Your task to perform on an android device: Show me productivity apps on the Play Store Image 0: 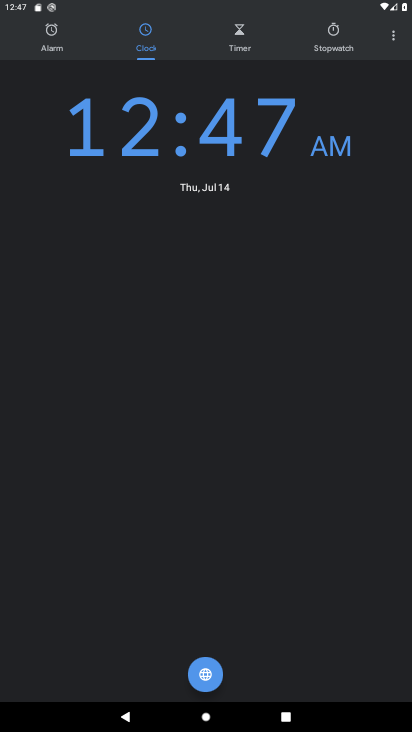
Step 0: press home button
Your task to perform on an android device: Show me productivity apps on the Play Store Image 1: 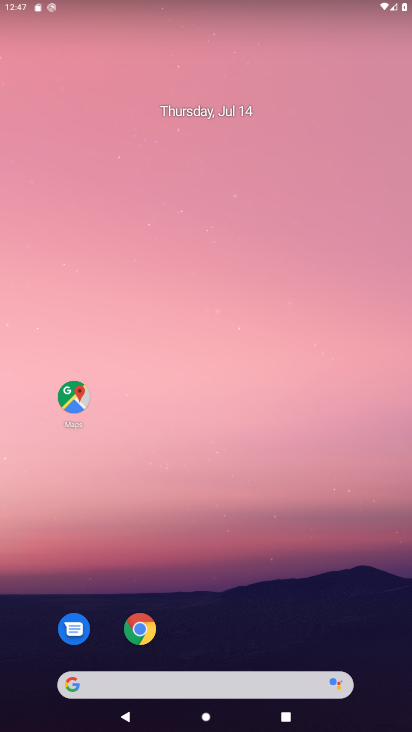
Step 1: drag from (295, 464) to (303, 0)
Your task to perform on an android device: Show me productivity apps on the Play Store Image 2: 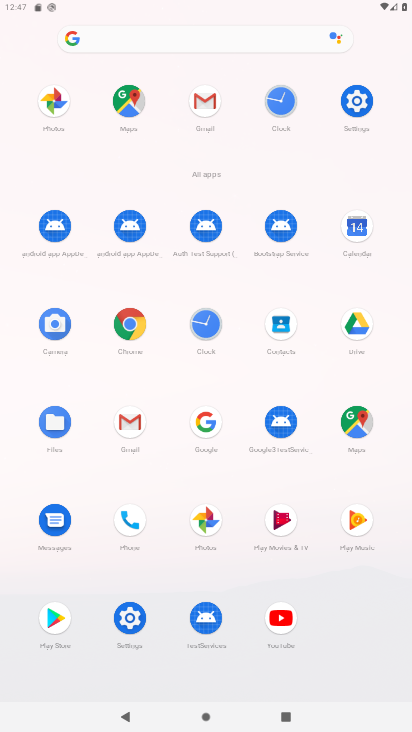
Step 2: click (67, 620)
Your task to perform on an android device: Show me productivity apps on the Play Store Image 3: 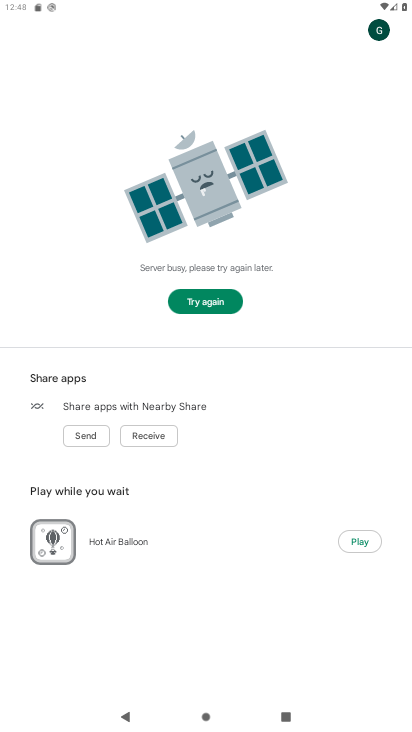
Step 3: click (216, 301)
Your task to perform on an android device: Show me productivity apps on the Play Store Image 4: 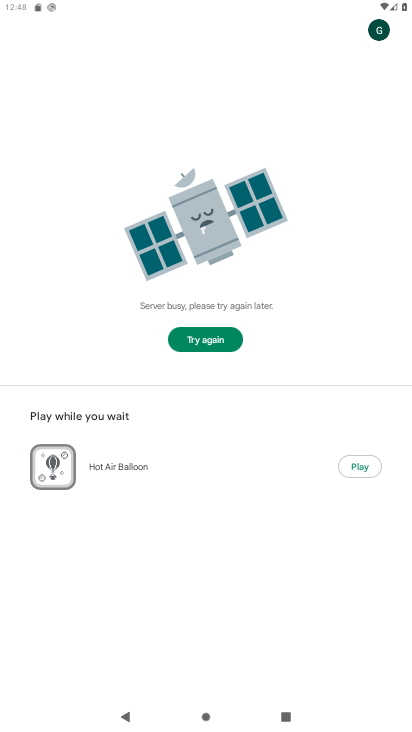
Step 4: task complete